Your task to perform on an android device: turn off translation in the chrome app Image 0: 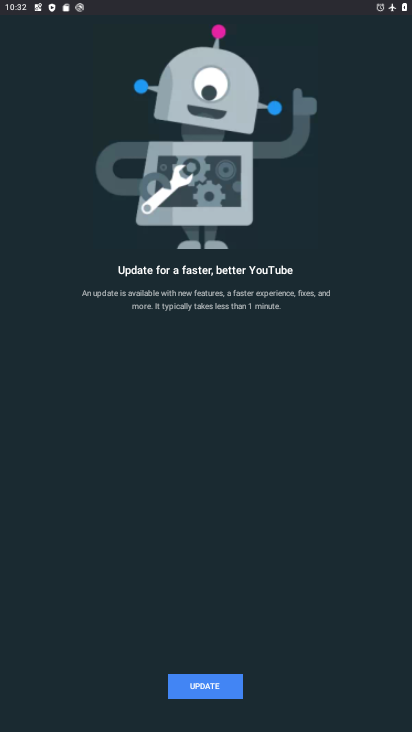
Step 0: press back button
Your task to perform on an android device: turn off translation in the chrome app Image 1: 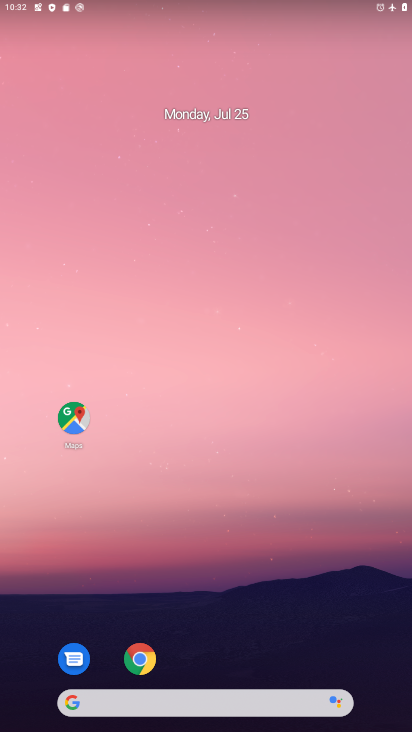
Step 1: drag from (189, 678) to (187, 28)
Your task to perform on an android device: turn off translation in the chrome app Image 2: 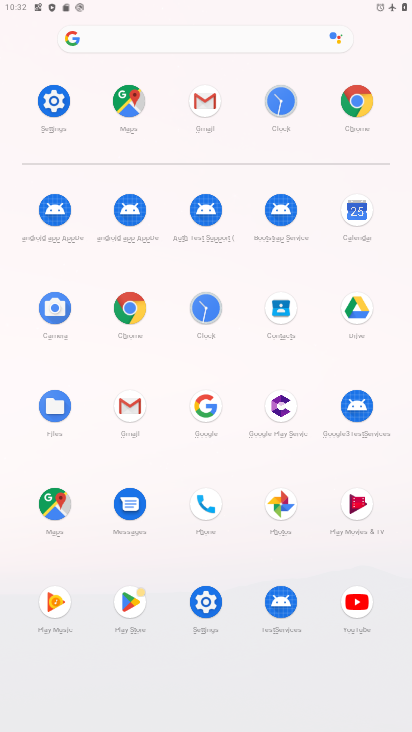
Step 2: click (118, 294)
Your task to perform on an android device: turn off translation in the chrome app Image 3: 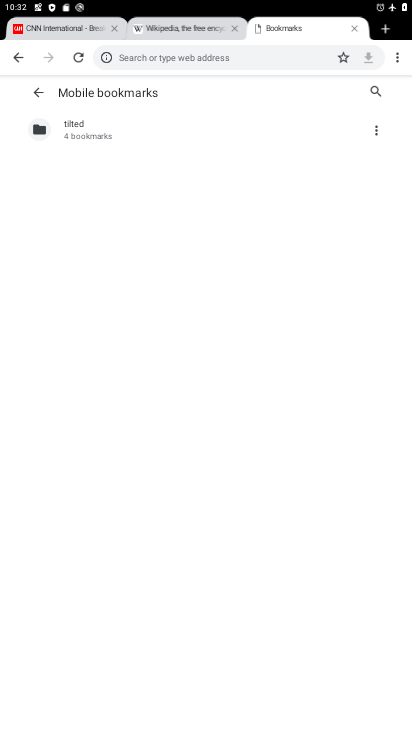
Step 3: click (400, 58)
Your task to perform on an android device: turn off translation in the chrome app Image 4: 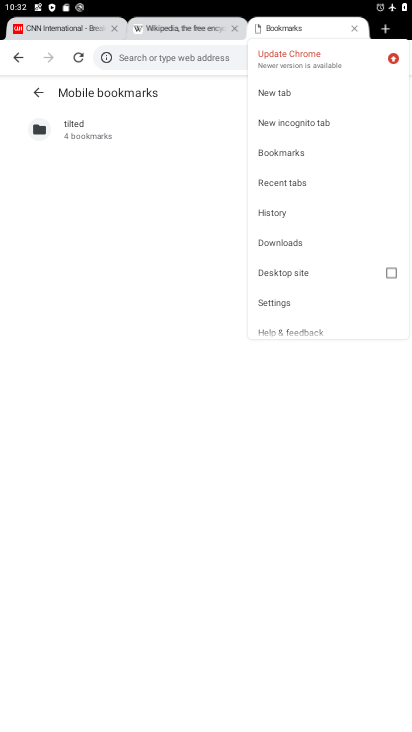
Step 4: click (282, 299)
Your task to perform on an android device: turn off translation in the chrome app Image 5: 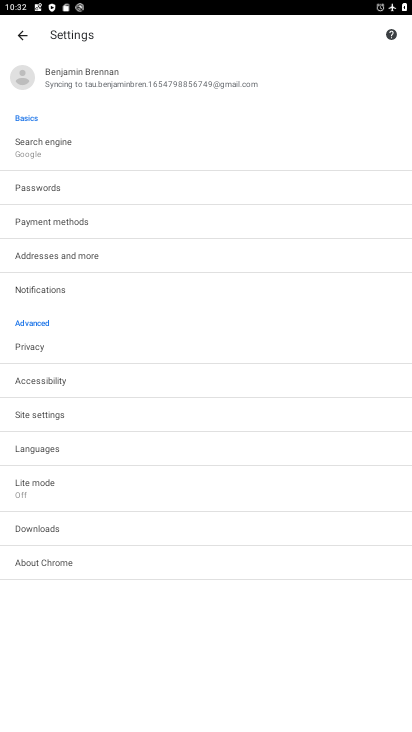
Step 5: click (83, 450)
Your task to perform on an android device: turn off translation in the chrome app Image 6: 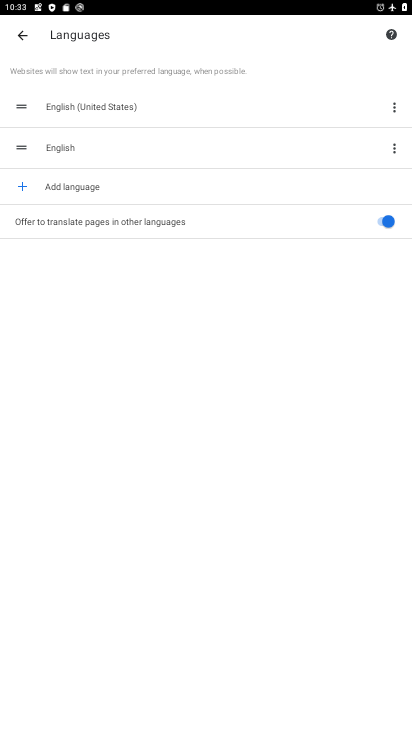
Step 6: click (386, 222)
Your task to perform on an android device: turn off translation in the chrome app Image 7: 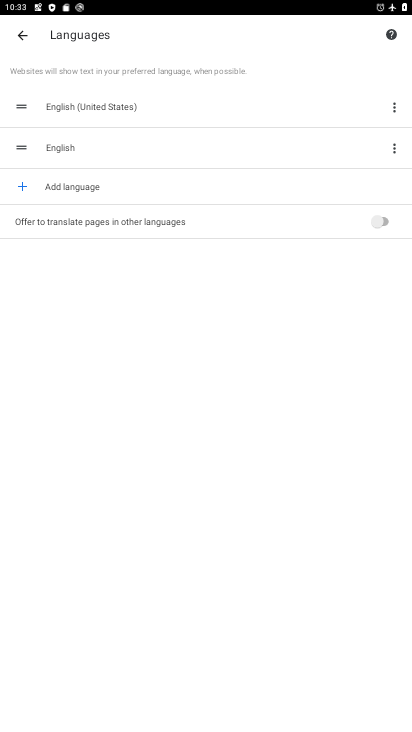
Step 7: task complete